Your task to perform on an android device: turn off smart reply in the gmail app Image 0: 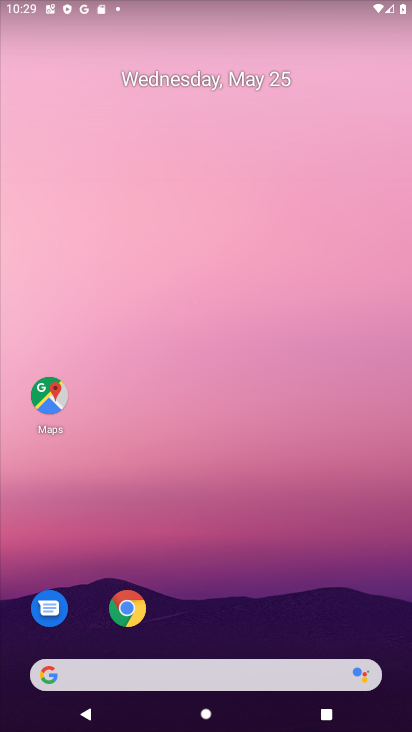
Step 0: drag from (210, 501) to (214, 4)
Your task to perform on an android device: turn off smart reply in the gmail app Image 1: 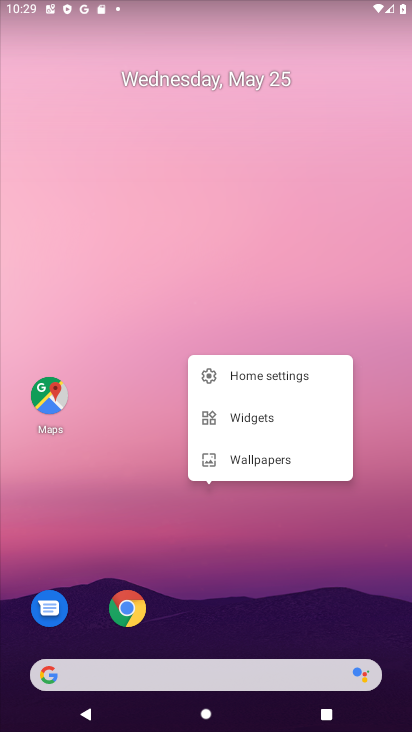
Step 1: drag from (319, 617) to (265, 14)
Your task to perform on an android device: turn off smart reply in the gmail app Image 2: 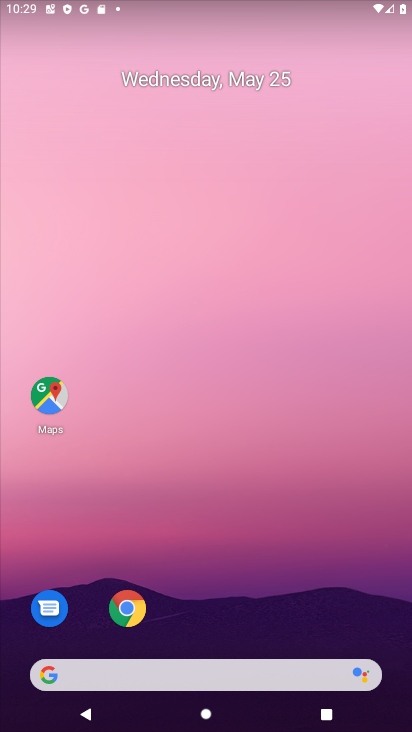
Step 2: drag from (243, 603) to (219, 5)
Your task to perform on an android device: turn off smart reply in the gmail app Image 3: 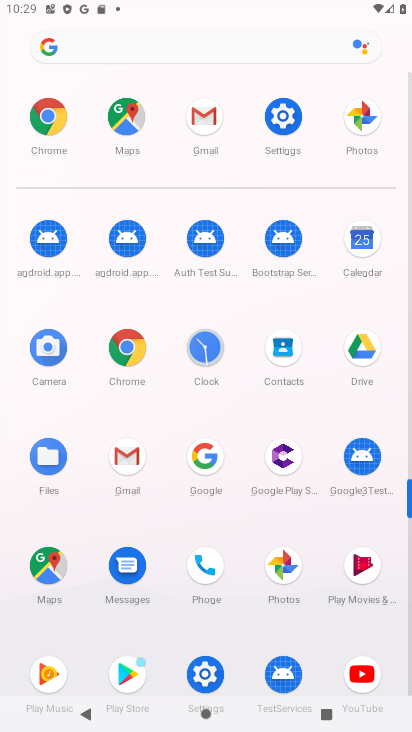
Step 3: click (206, 119)
Your task to perform on an android device: turn off smart reply in the gmail app Image 4: 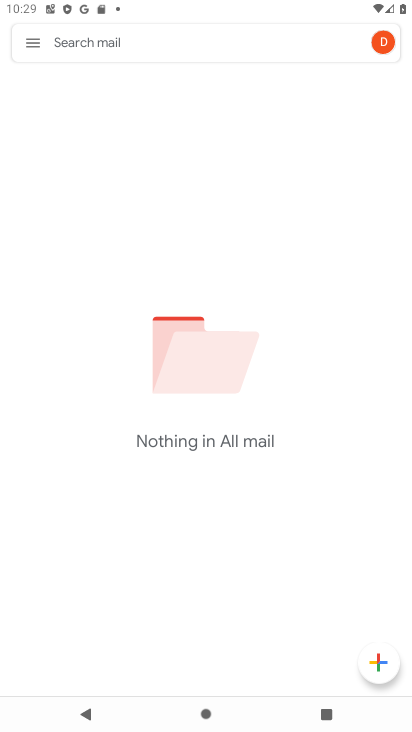
Step 4: click (28, 44)
Your task to perform on an android device: turn off smart reply in the gmail app Image 5: 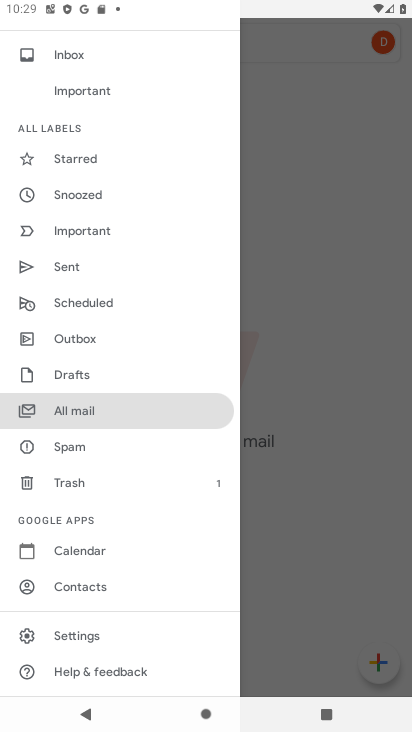
Step 5: click (87, 631)
Your task to perform on an android device: turn off smart reply in the gmail app Image 6: 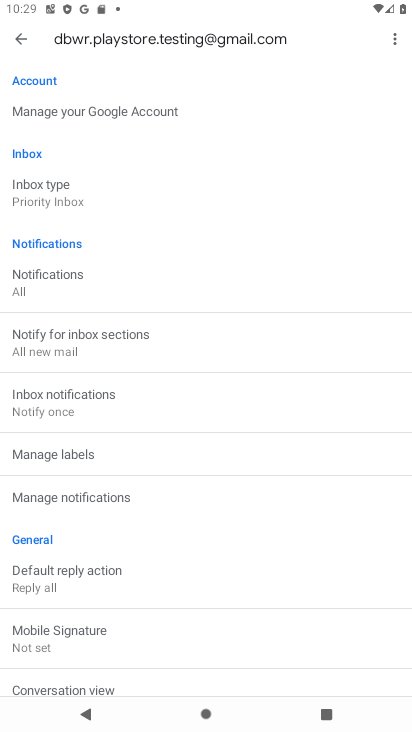
Step 6: task complete